Your task to perform on an android device: Is it going to rain tomorrow? Image 0: 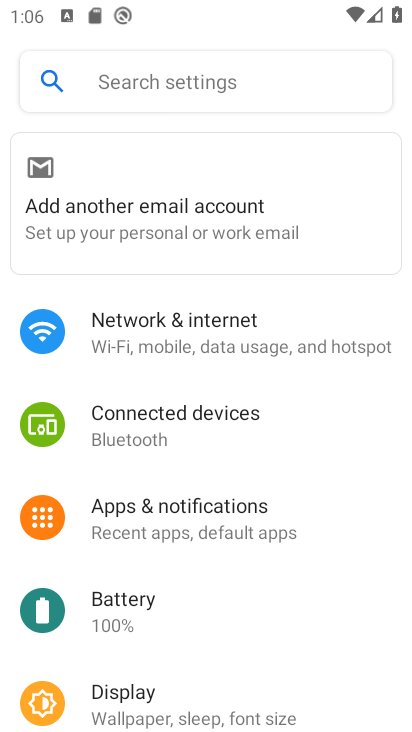
Step 0: press home button
Your task to perform on an android device: Is it going to rain tomorrow? Image 1: 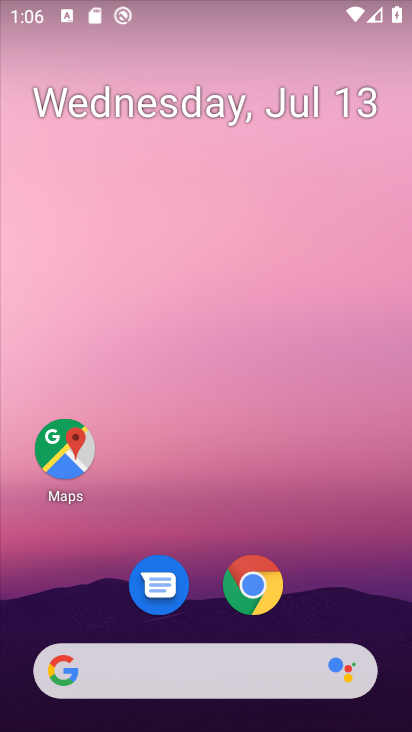
Step 1: click (213, 675)
Your task to perform on an android device: Is it going to rain tomorrow? Image 2: 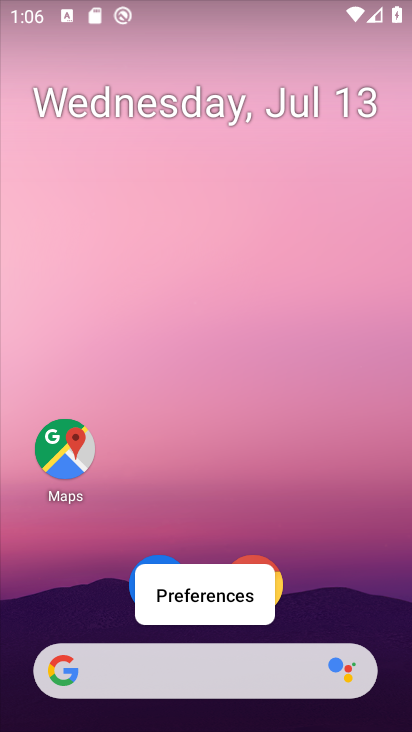
Step 2: click (213, 665)
Your task to perform on an android device: Is it going to rain tomorrow? Image 3: 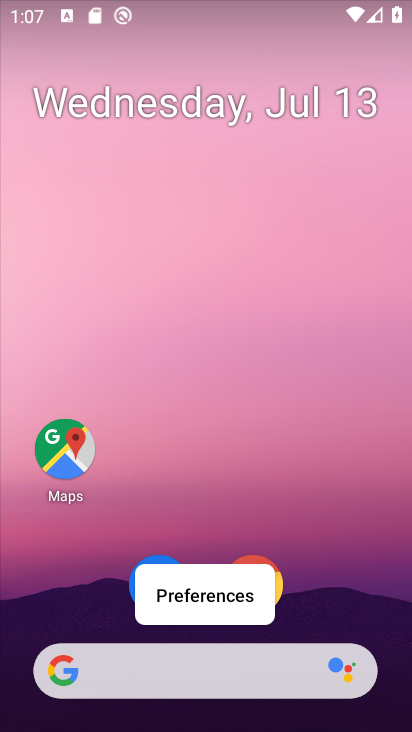
Step 3: click (137, 663)
Your task to perform on an android device: Is it going to rain tomorrow? Image 4: 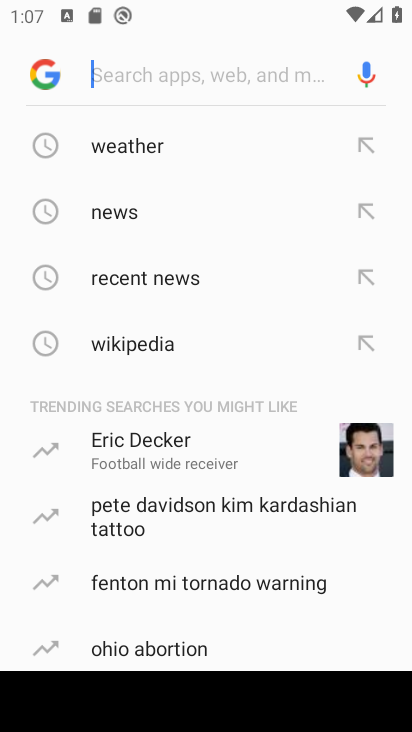
Step 4: click (48, 142)
Your task to perform on an android device: Is it going to rain tomorrow? Image 5: 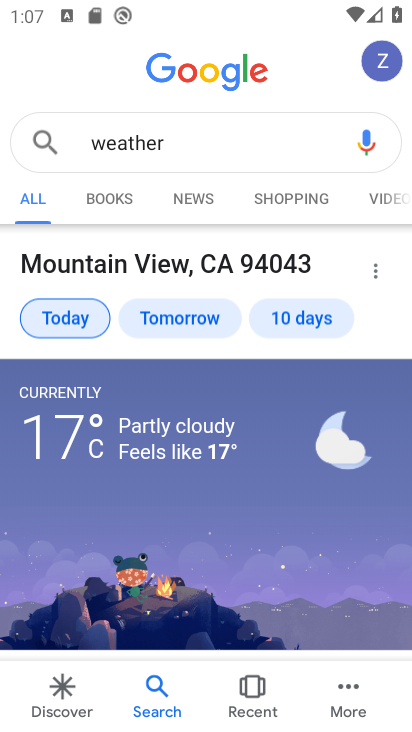
Step 5: click (80, 308)
Your task to perform on an android device: Is it going to rain tomorrow? Image 6: 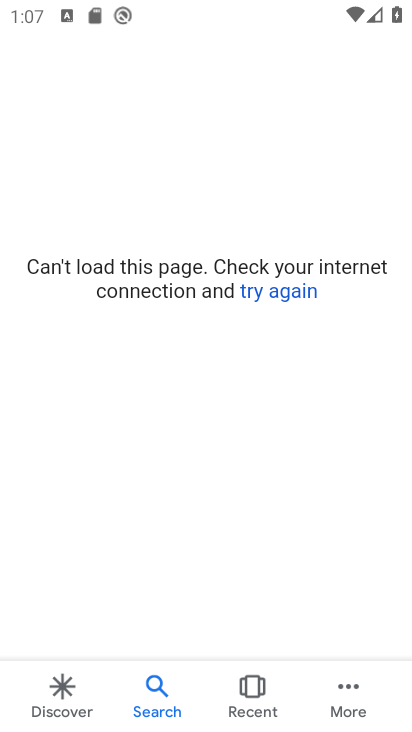
Step 6: click (305, 285)
Your task to perform on an android device: Is it going to rain tomorrow? Image 7: 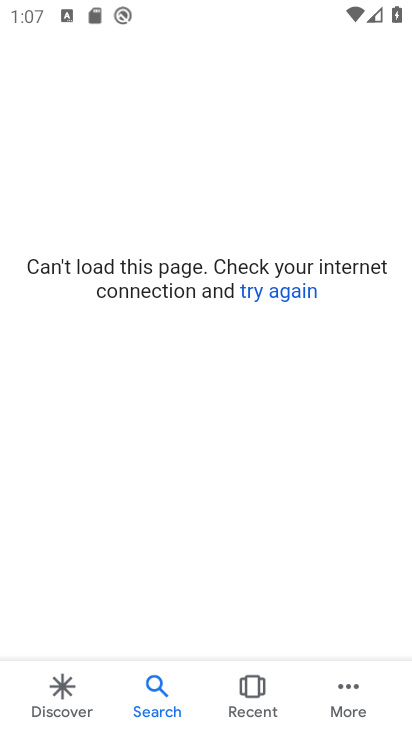
Step 7: task complete